Your task to perform on an android device: turn on location history Image 0: 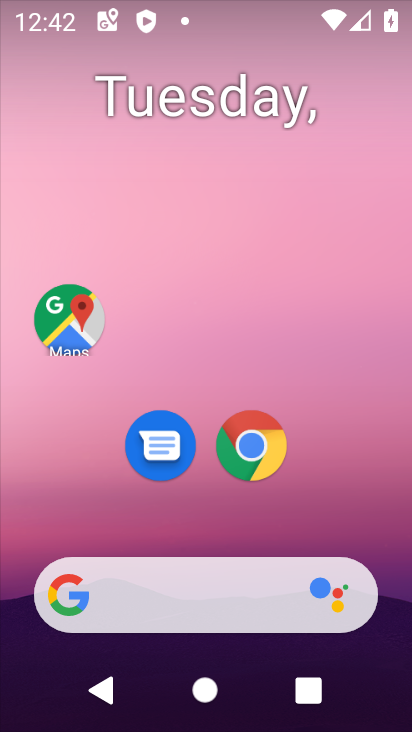
Step 0: drag from (321, 509) to (345, 0)
Your task to perform on an android device: turn on location history Image 1: 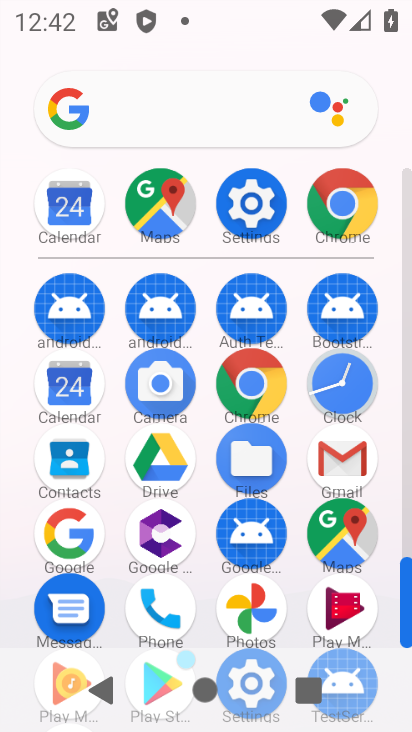
Step 1: click (259, 185)
Your task to perform on an android device: turn on location history Image 2: 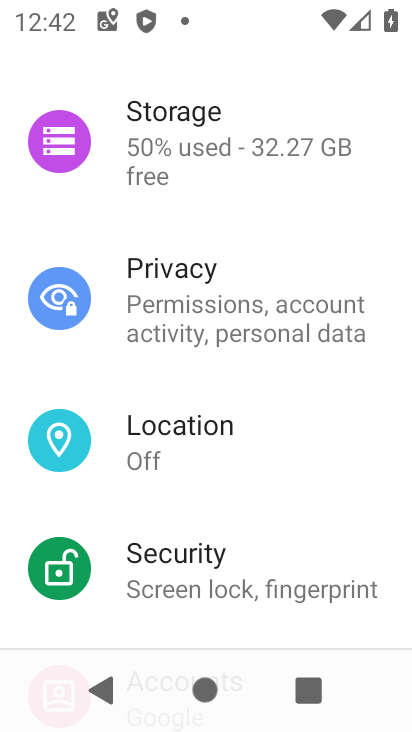
Step 2: click (214, 428)
Your task to perform on an android device: turn on location history Image 3: 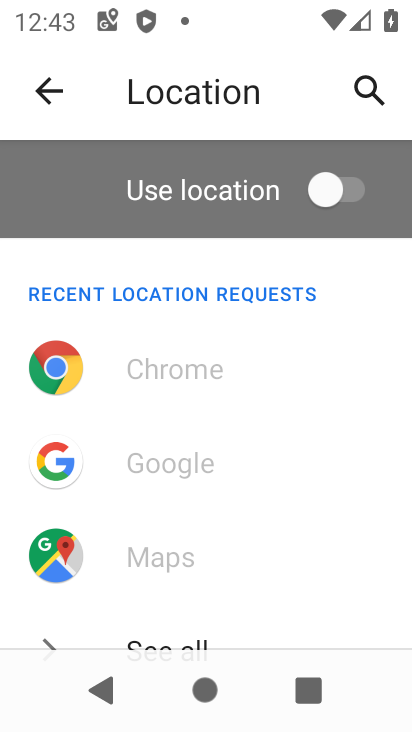
Step 3: drag from (195, 540) to (204, 224)
Your task to perform on an android device: turn on location history Image 4: 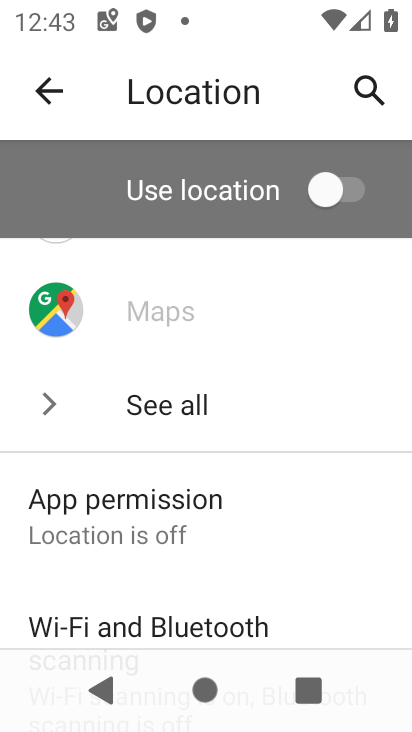
Step 4: drag from (197, 538) to (185, 212)
Your task to perform on an android device: turn on location history Image 5: 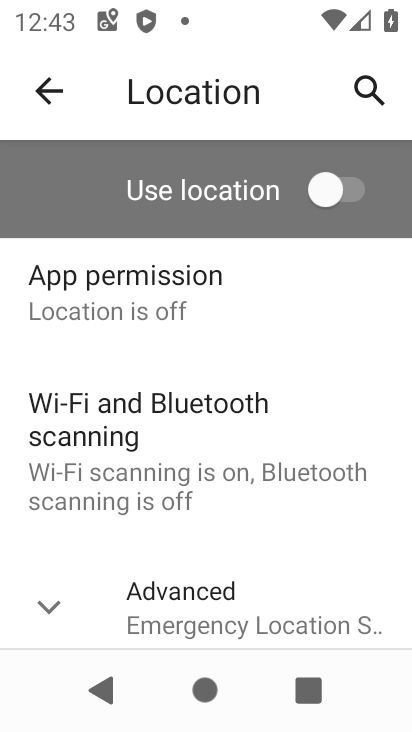
Step 5: click (176, 567)
Your task to perform on an android device: turn on location history Image 6: 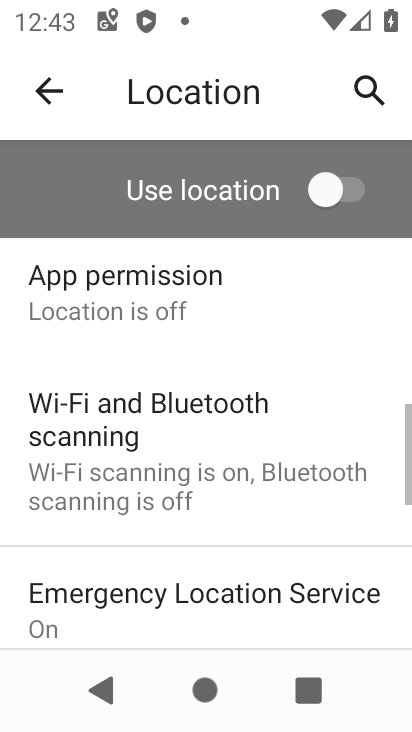
Step 6: drag from (176, 567) to (175, 229)
Your task to perform on an android device: turn on location history Image 7: 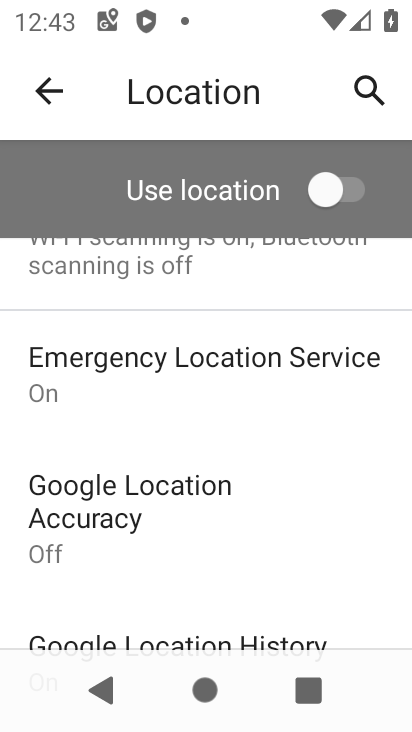
Step 7: drag from (130, 597) to (165, 196)
Your task to perform on an android device: turn on location history Image 8: 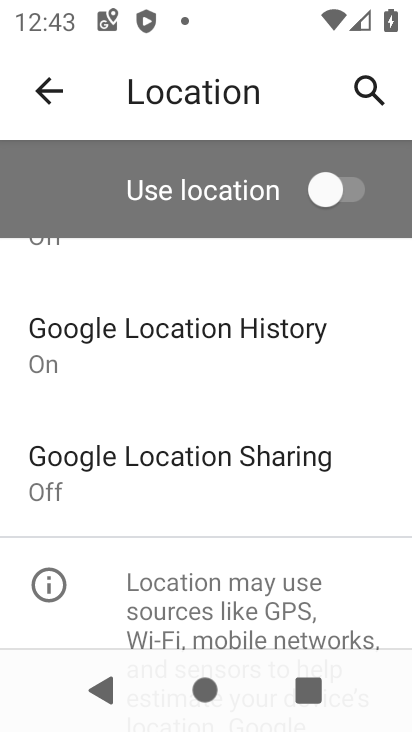
Step 8: click (165, 360)
Your task to perform on an android device: turn on location history Image 9: 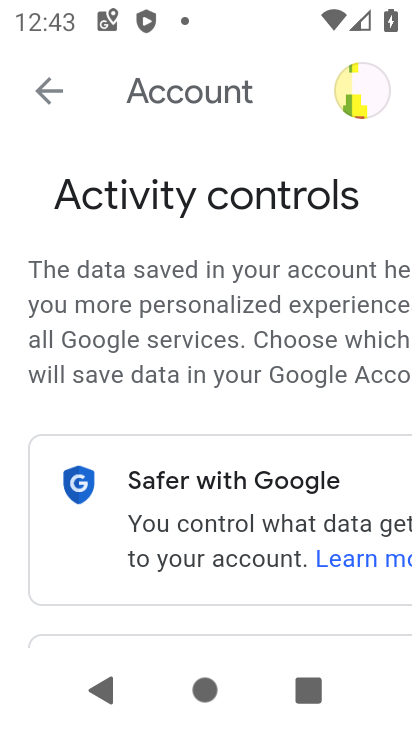
Step 9: drag from (215, 561) to (210, 179)
Your task to perform on an android device: turn on location history Image 10: 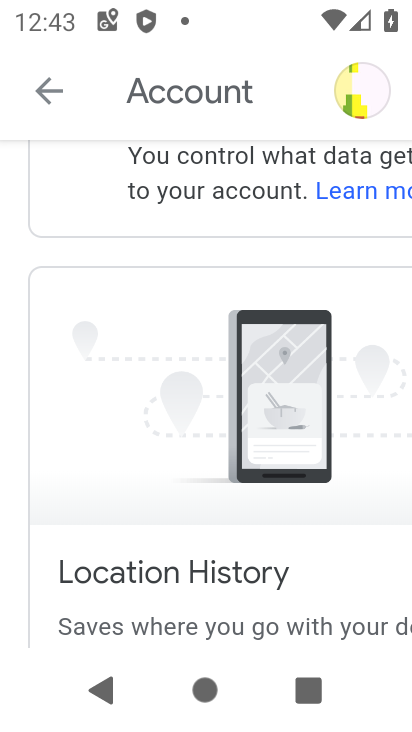
Step 10: drag from (185, 633) to (225, 166)
Your task to perform on an android device: turn on location history Image 11: 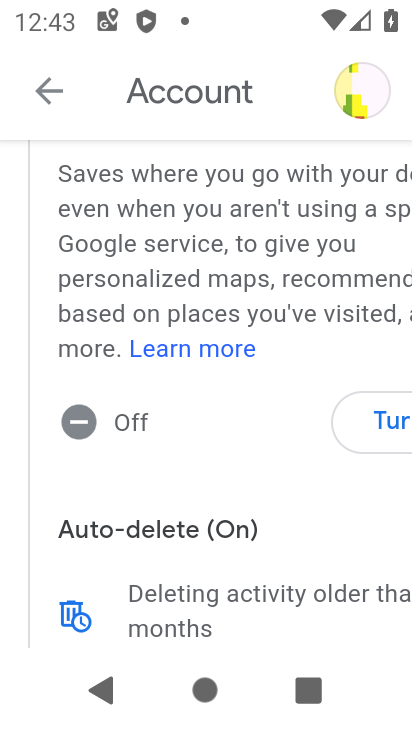
Step 11: drag from (250, 551) to (191, 554)
Your task to perform on an android device: turn on location history Image 12: 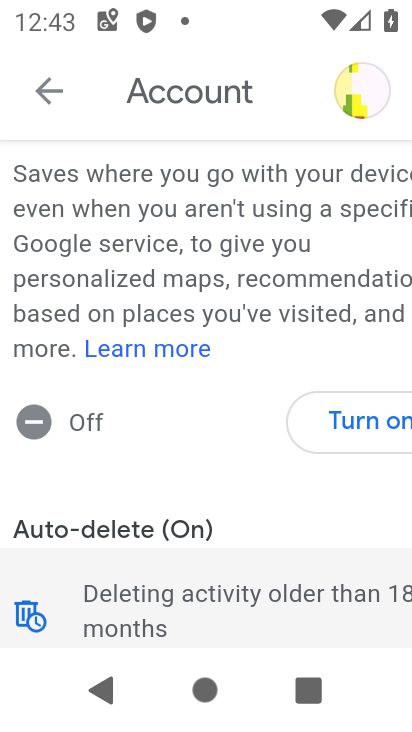
Step 12: click (349, 417)
Your task to perform on an android device: turn on location history Image 13: 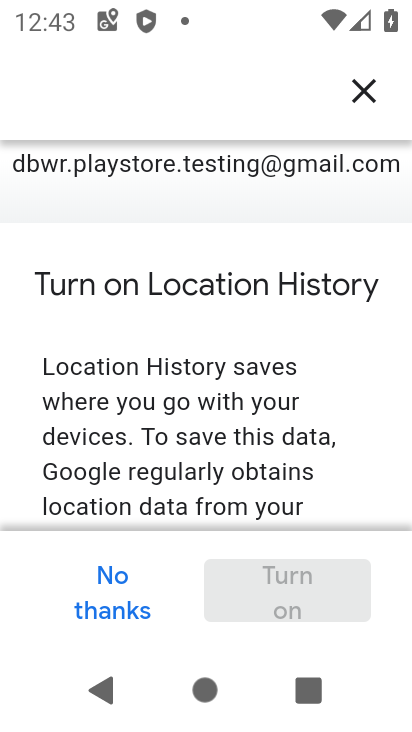
Step 13: drag from (247, 423) to (297, 164)
Your task to perform on an android device: turn on location history Image 14: 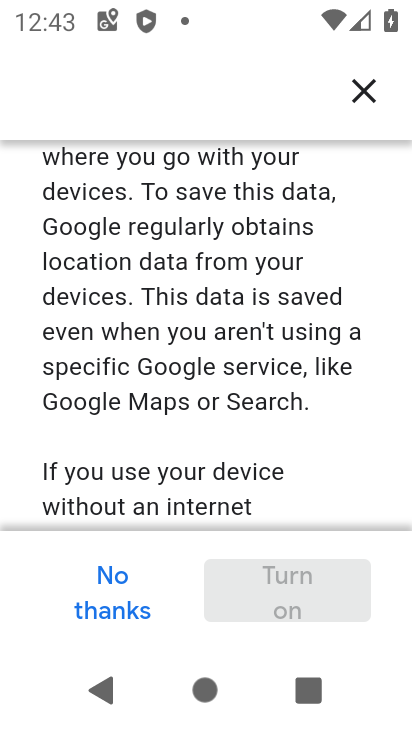
Step 14: drag from (213, 500) to (304, 111)
Your task to perform on an android device: turn on location history Image 15: 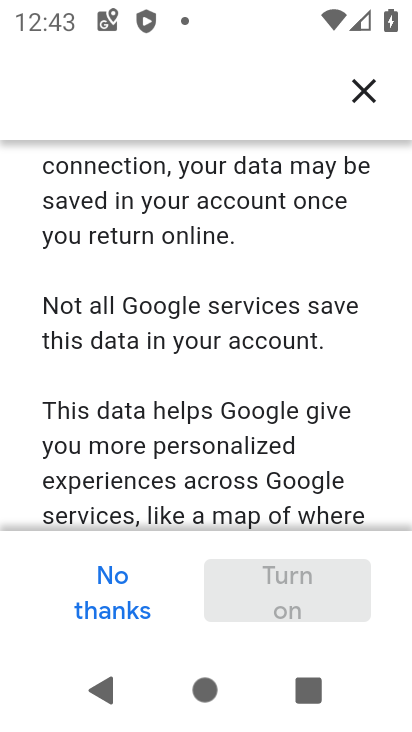
Step 15: drag from (218, 477) to (281, 107)
Your task to perform on an android device: turn on location history Image 16: 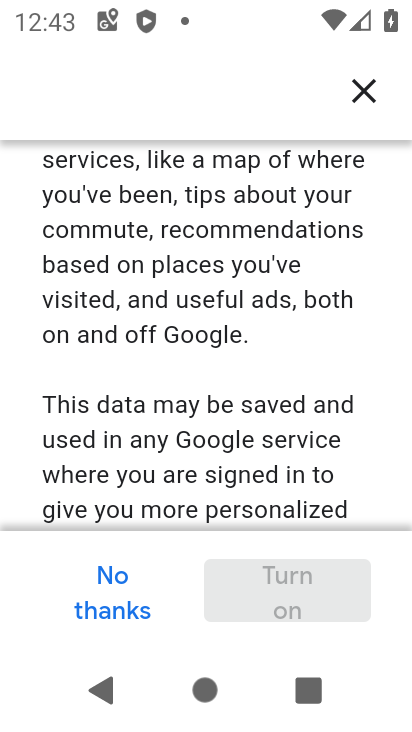
Step 16: drag from (219, 477) to (303, 108)
Your task to perform on an android device: turn on location history Image 17: 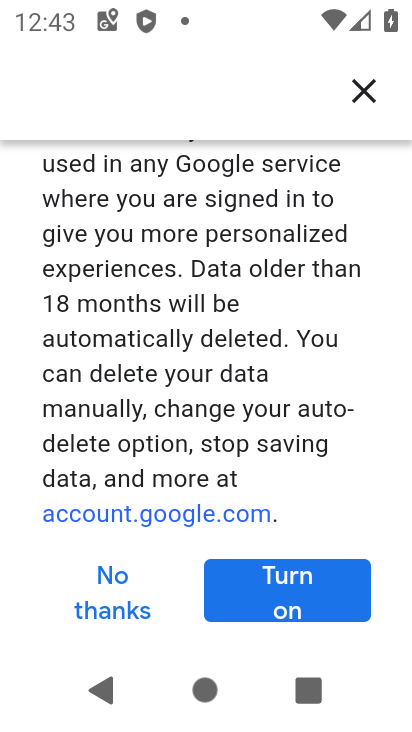
Step 17: drag from (248, 484) to (303, 217)
Your task to perform on an android device: turn on location history Image 18: 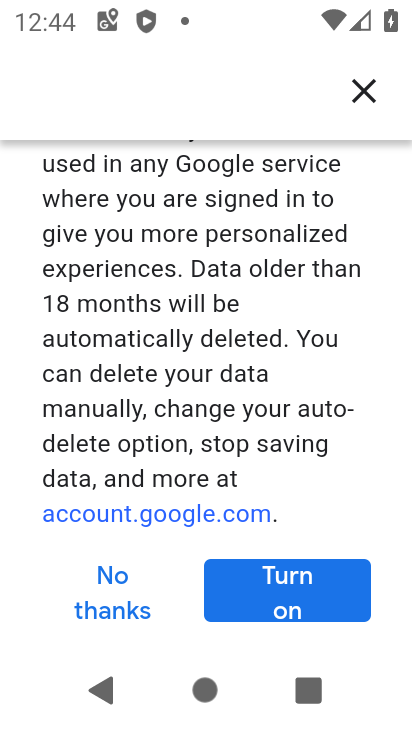
Step 18: click (277, 584)
Your task to perform on an android device: turn on location history Image 19: 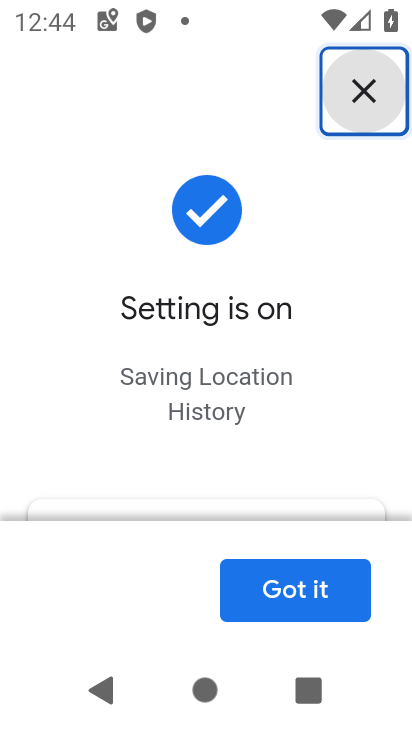
Step 19: click (277, 616)
Your task to perform on an android device: turn on location history Image 20: 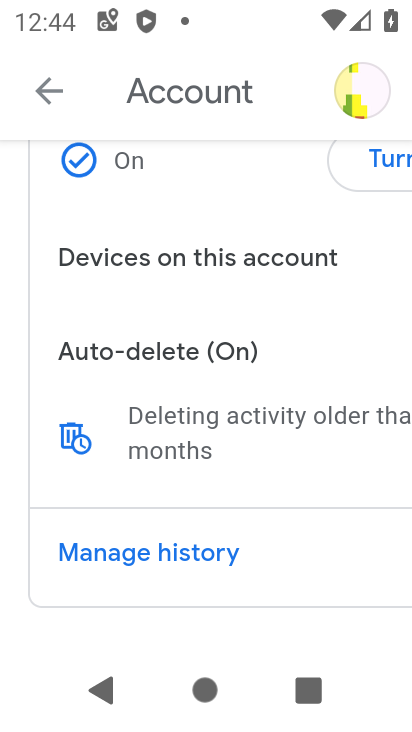
Step 20: task complete